Your task to perform on an android device: clear all cookies in the chrome app Image 0: 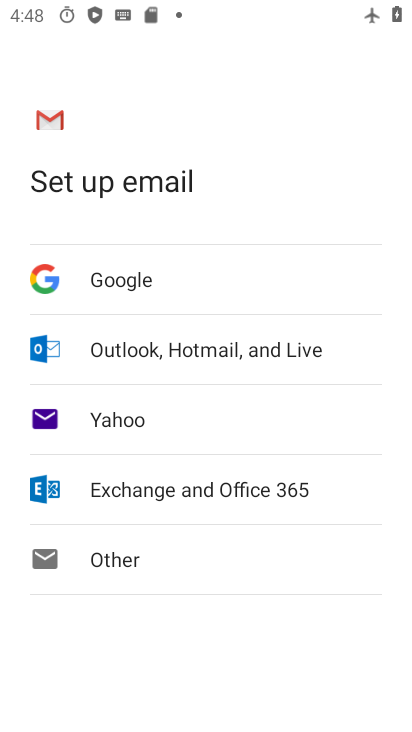
Step 0: press home button
Your task to perform on an android device: clear all cookies in the chrome app Image 1: 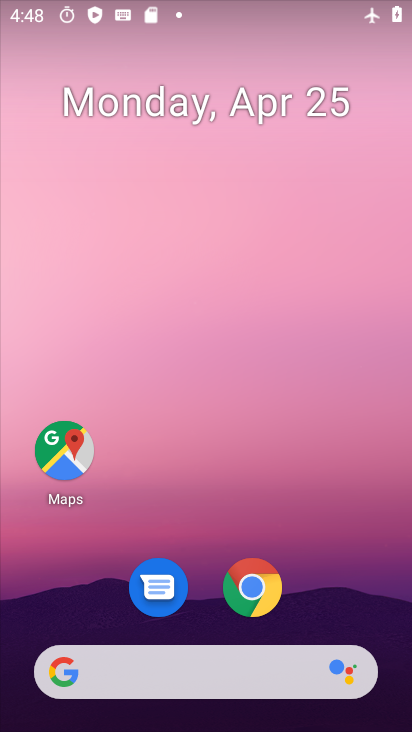
Step 1: drag from (304, 577) to (302, 122)
Your task to perform on an android device: clear all cookies in the chrome app Image 2: 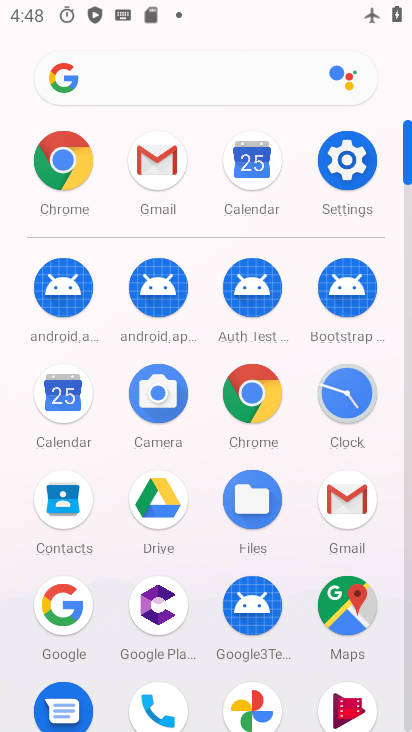
Step 2: click (246, 405)
Your task to perform on an android device: clear all cookies in the chrome app Image 3: 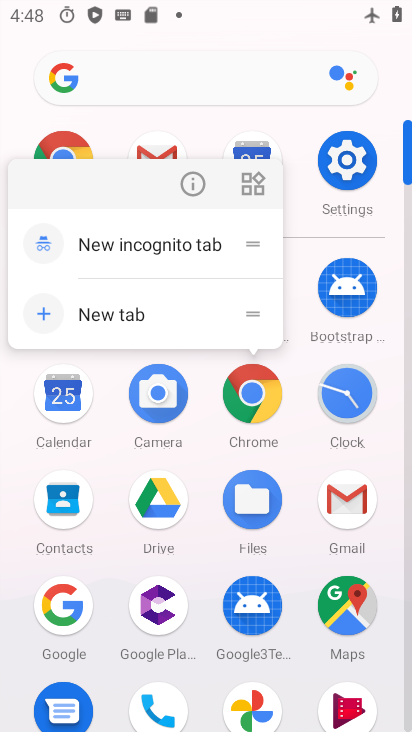
Step 3: click (259, 393)
Your task to perform on an android device: clear all cookies in the chrome app Image 4: 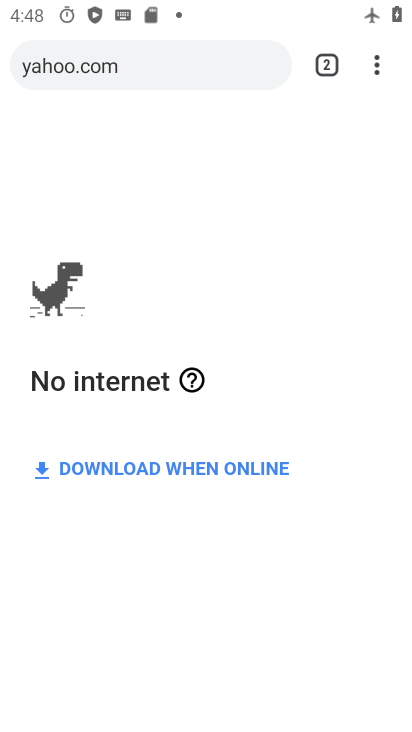
Step 4: task complete